Your task to perform on an android device: Open Wikipedia Image 0: 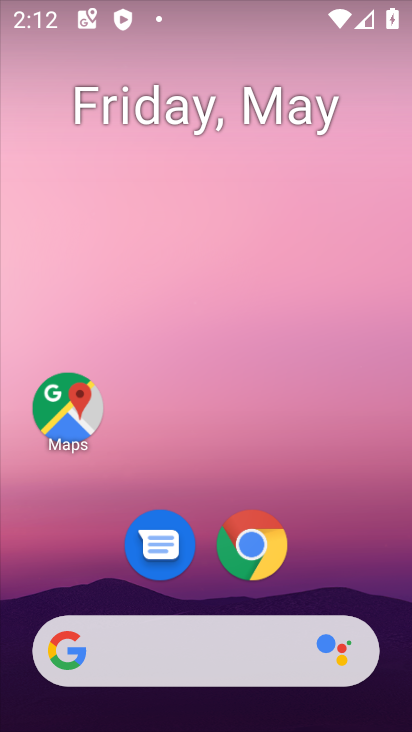
Step 0: click (270, 531)
Your task to perform on an android device: Open Wikipedia Image 1: 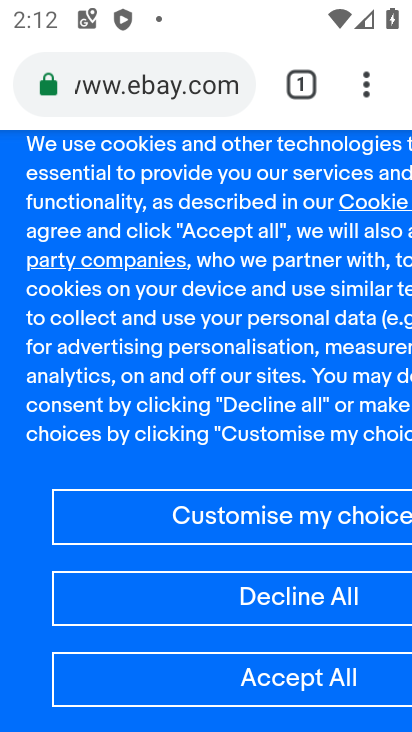
Step 1: drag from (377, 87) to (314, 178)
Your task to perform on an android device: Open Wikipedia Image 2: 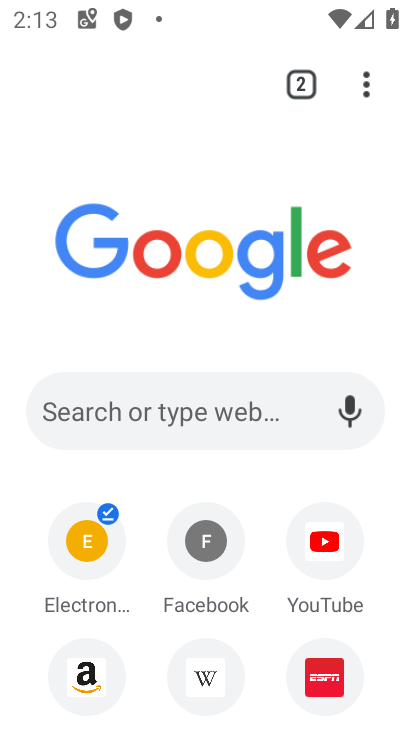
Step 2: click (224, 652)
Your task to perform on an android device: Open Wikipedia Image 3: 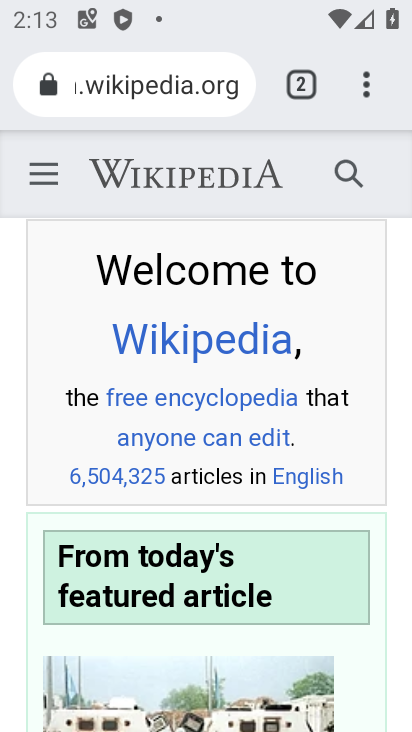
Step 3: task complete